Your task to perform on an android device: Go to settings Image 0: 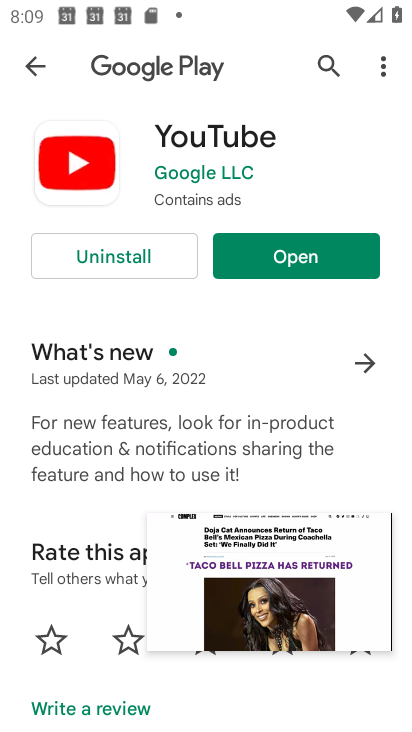
Step 0: press home button
Your task to perform on an android device: Go to settings Image 1: 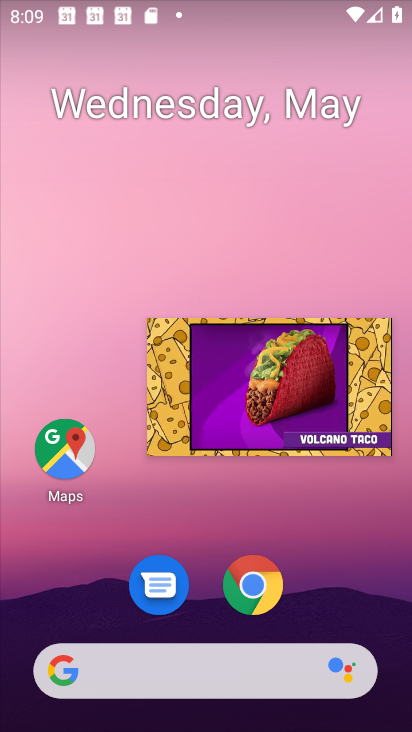
Step 1: drag from (102, 499) to (87, 151)
Your task to perform on an android device: Go to settings Image 2: 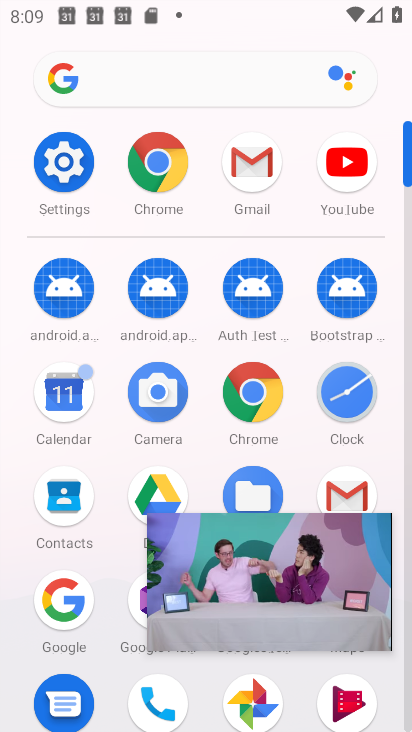
Step 2: click (54, 151)
Your task to perform on an android device: Go to settings Image 3: 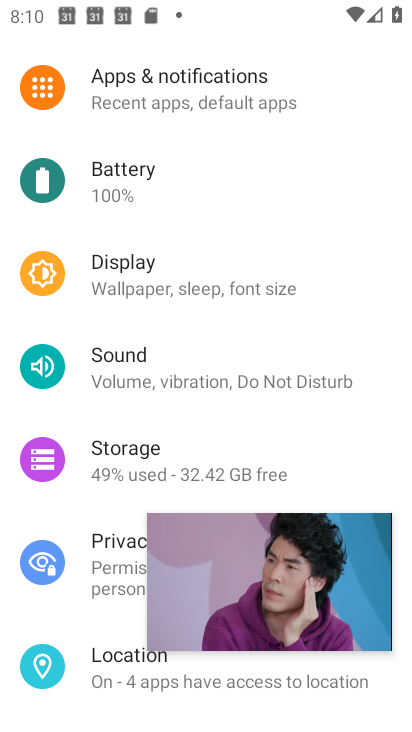
Step 3: task complete